Your task to perform on an android device: turn off location Image 0: 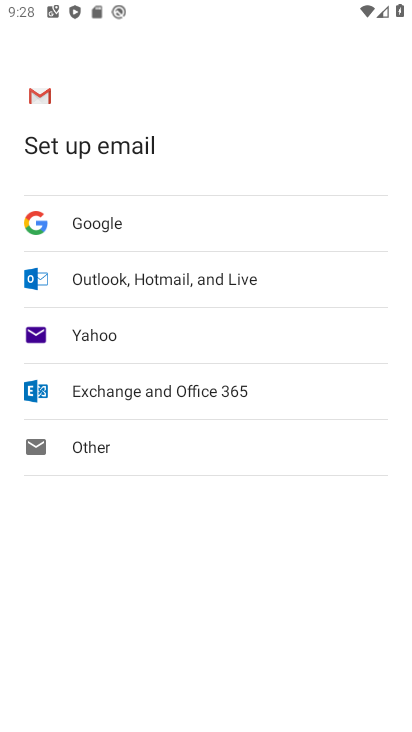
Step 0: press home button
Your task to perform on an android device: turn off location Image 1: 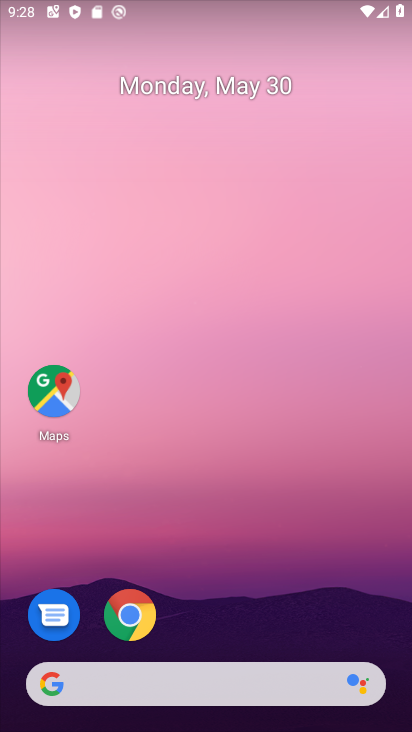
Step 1: drag from (301, 542) to (218, 6)
Your task to perform on an android device: turn off location Image 2: 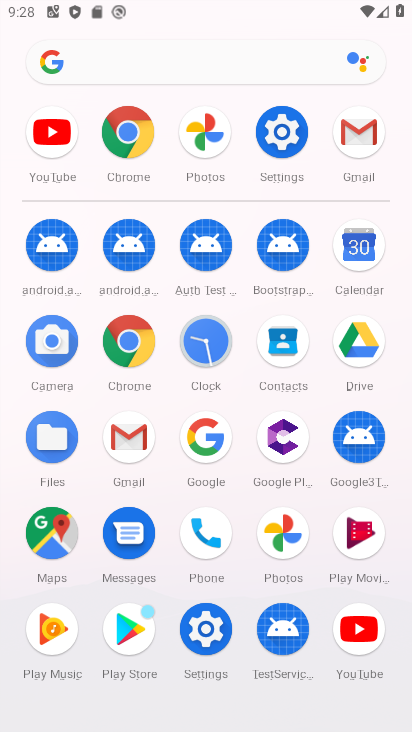
Step 2: click (278, 122)
Your task to perform on an android device: turn off location Image 3: 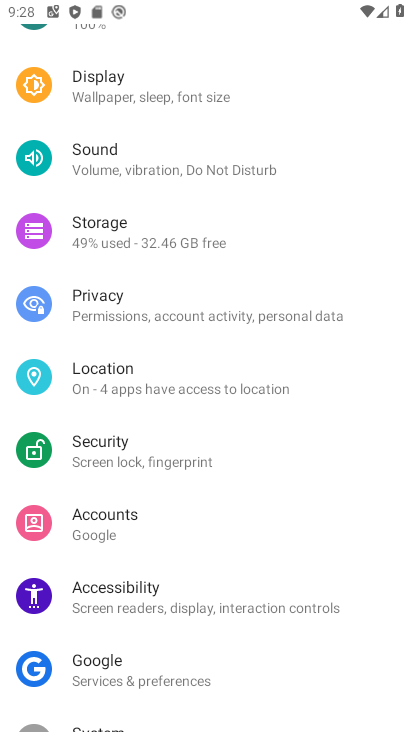
Step 3: drag from (183, 592) to (169, 199)
Your task to perform on an android device: turn off location Image 4: 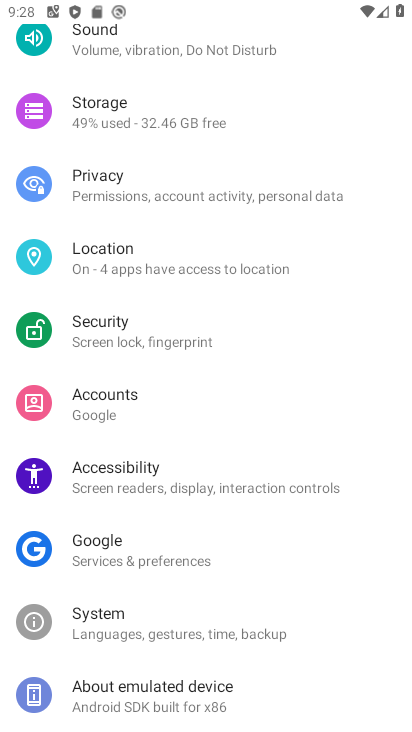
Step 4: click (178, 247)
Your task to perform on an android device: turn off location Image 5: 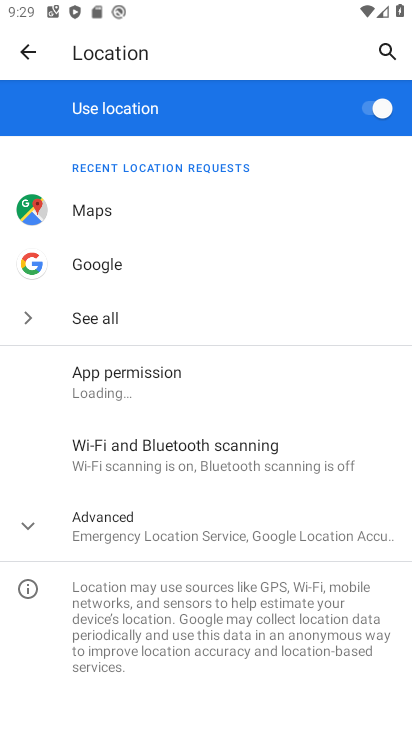
Step 5: click (351, 110)
Your task to perform on an android device: turn off location Image 6: 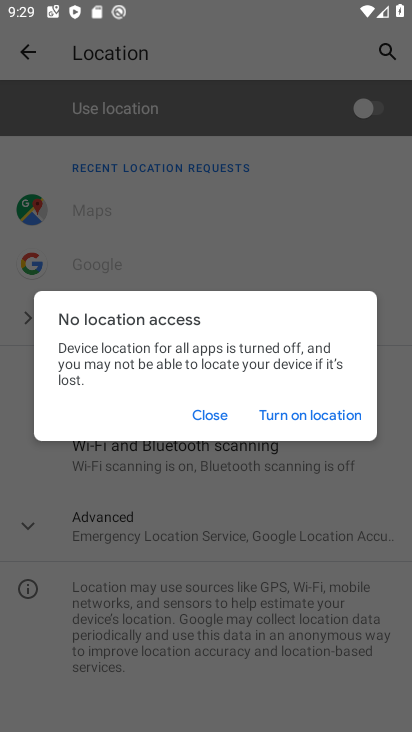
Step 6: task complete